Your task to perform on an android device: Go to Reddit.com Image 0: 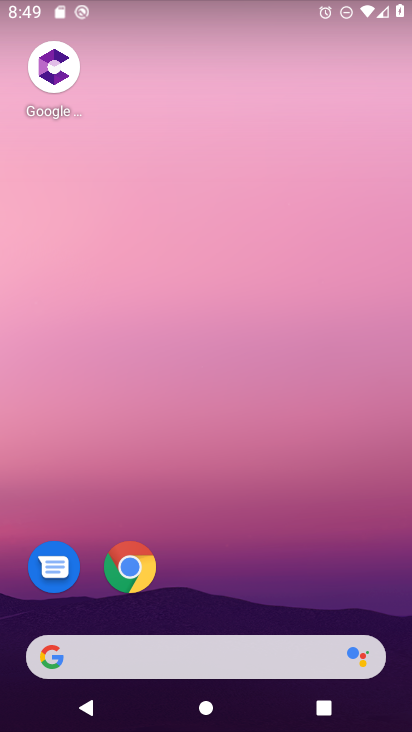
Step 0: drag from (235, 632) to (239, 231)
Your task to perform on an android device: Go to Reddit.com Image 1: 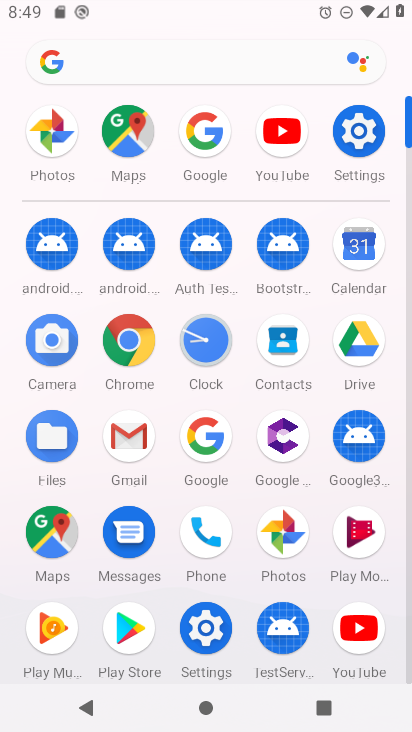
Step 1: click (200, 424)
Your task to perform on an android device: Go to Reddit.com Image 2: 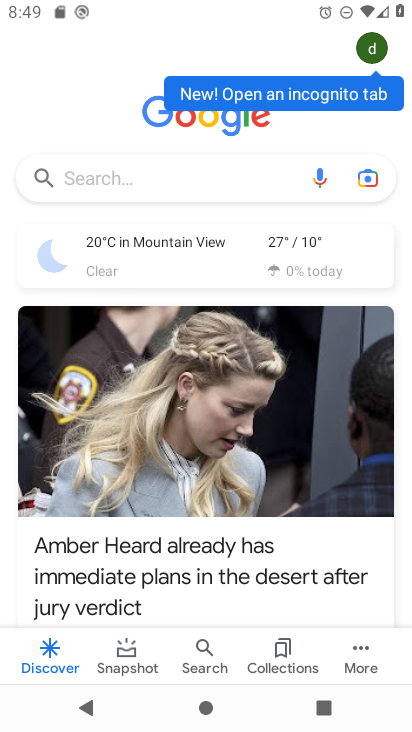
Step 2: click (193, 178)
Your task to perform on an android device: Go to Reddit.com Image 3: 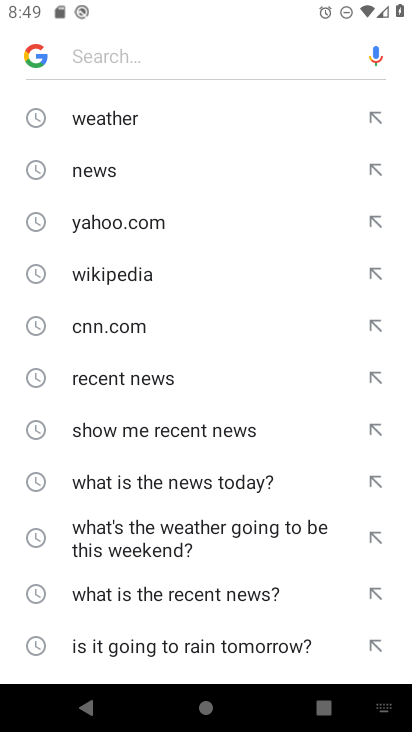
Step 3: drag from (181, 606) to (170, 149)
Your task to perform on an android device: Go to Reddit.com Image 4: 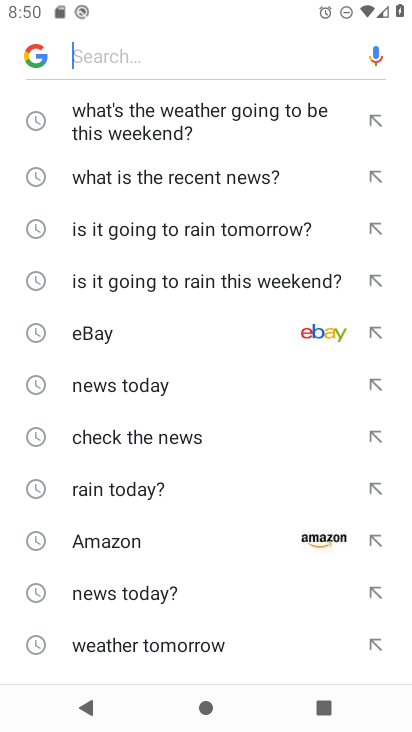
Step 4: drag from (137, 604) to (129, 142)
Your task to perform on an android device: Go to Reddit.com Image 5: 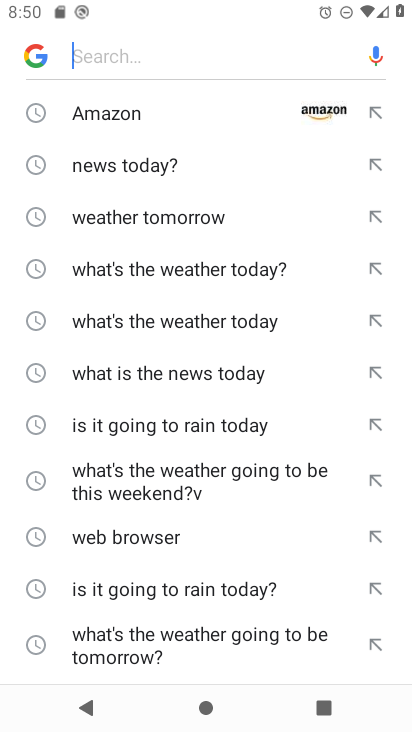
Step 5: drag from (175, 577) to (178, 206)
Your task to perform on an android device: Go to Reddit.com Image 6: 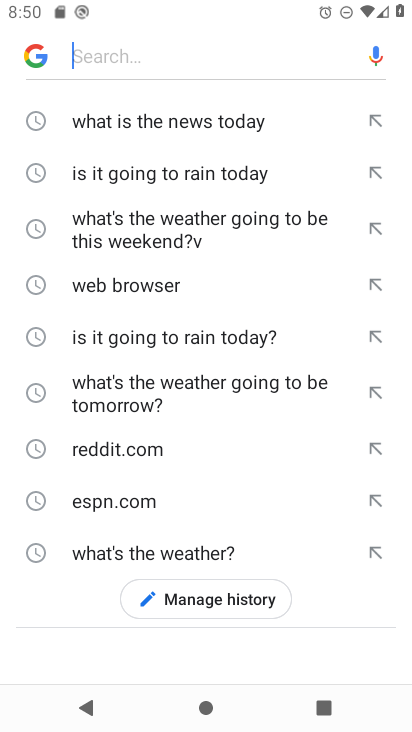
Step 6: click (145, 450)
Your task to perform on an android device: Go to Reddit.com Image 7: 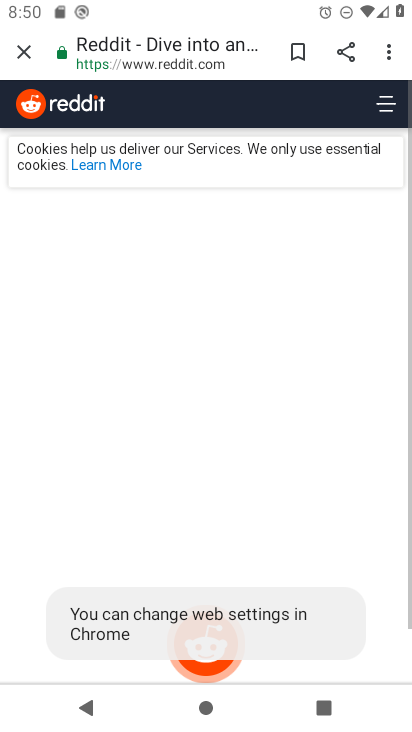
Step 7: task complete